Your task to perform on an android device: turn off priority inbox in the gmail app Image 0: 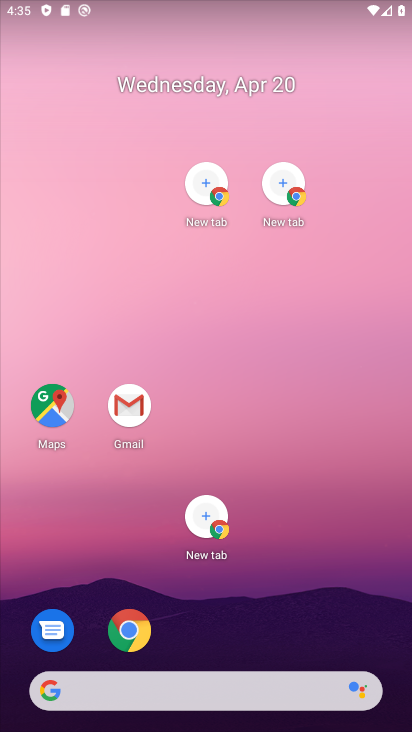
Step 0: drag from (299, 699) to (10, 80)
Your task to perform on an android device: turn off priority inbox in the gmail app Image 1: 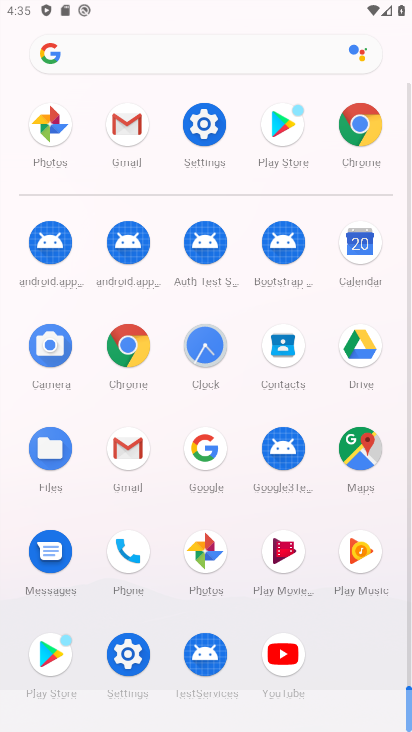
Step 1: click (121, 445)
Your task to perform on an android device: turn off priority inbox in the gmail app Image 2: 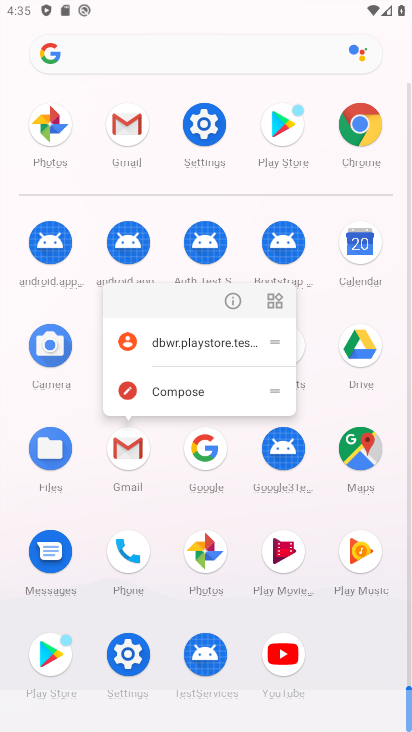
Step 2: click (121, 445)
Your task to perform on an android device: turn off priority inbox in the gmail app Image 3: 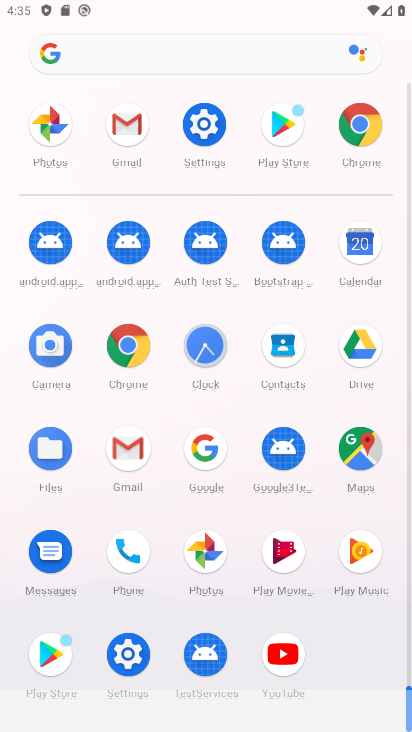
Step 3: click (123, 453)
Your task to perform on an android device: turn off priority inbox in the gmail app Image 4: 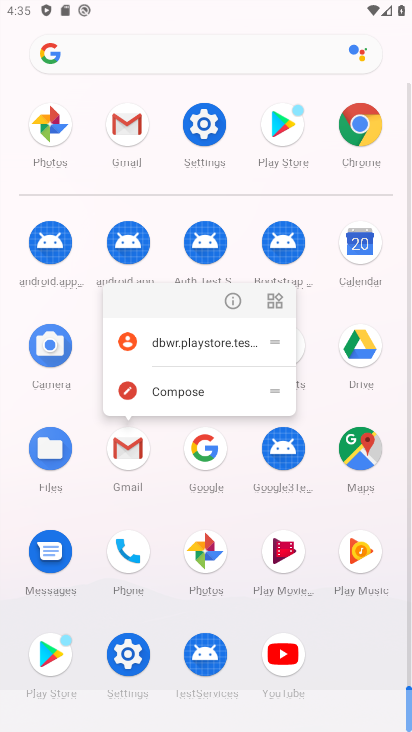
Step 4: click (124, 452)
Your task to perform on an android device: turn off priority inbox in the gmail app Image 5: 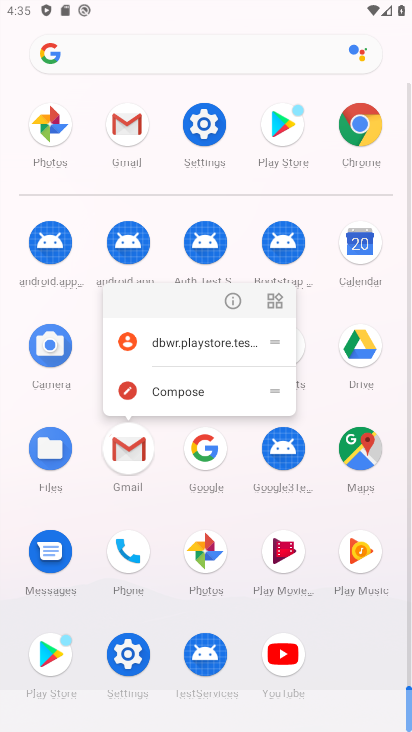
Step 5: click (127, 432)
Your task to perform on an android device: turn off priority inbox in the gmail app Image 6: 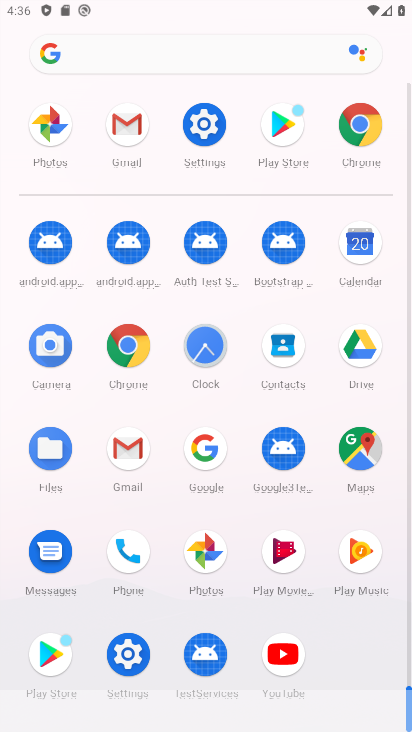
Step 6: drag from (128, 456) to (134, 527)
Your task to perform on an android device: turn off priority inbox in the gmail app Image 7: 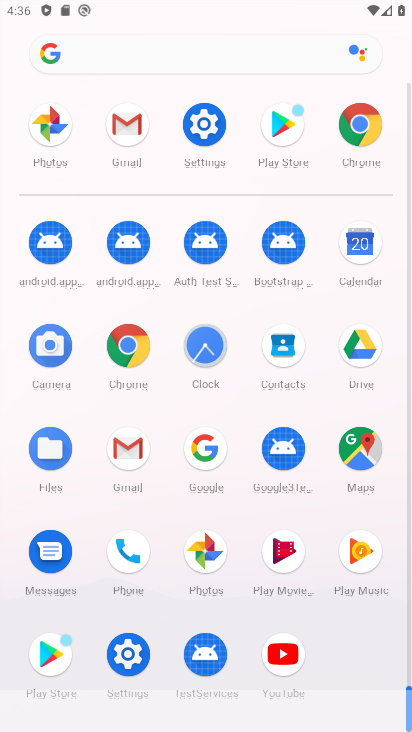
Step 7: click (116, 449)
Your task to perform on an android device: turn off priority inbox in the gmail app Image 8: 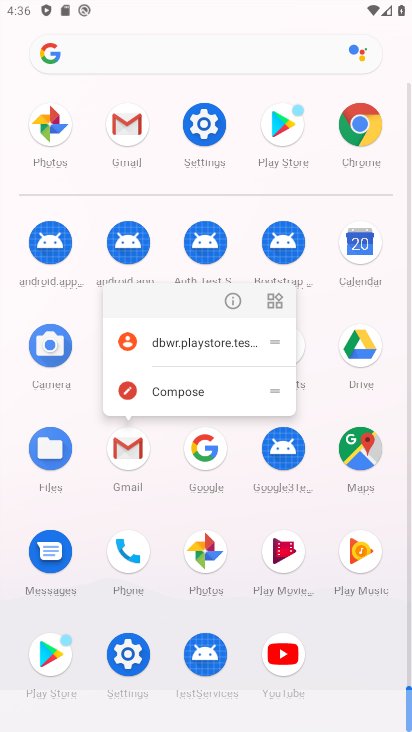
Step 8: click (124, 448)
Your task to perform on an android device: turn off priority inbox in the gmail app Image 9: 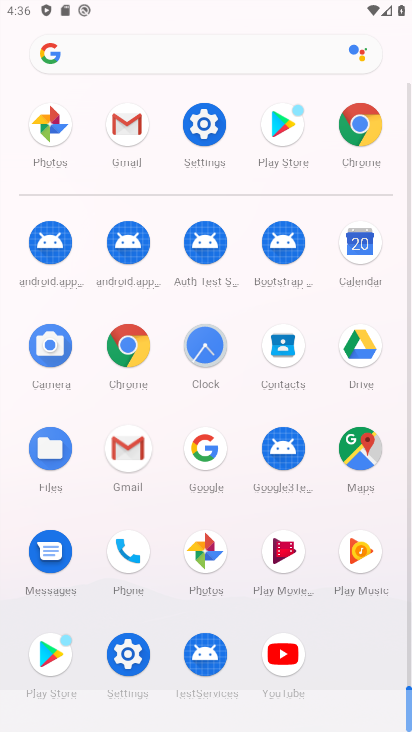
Step 9: drag from (124, 448) to (144, 579)
Your task to perform on an android device: turn off priority inbox in the gmail app Image 10: 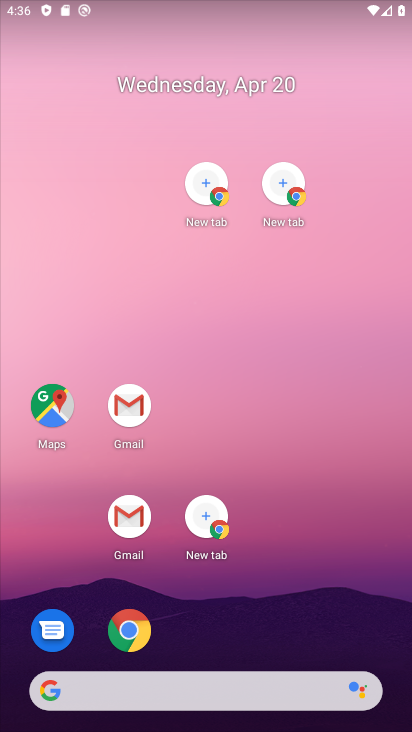
Step 10: click (72, 505)
Your task to perform on an android device: turn off priority inbox in the gmail app Image 11: 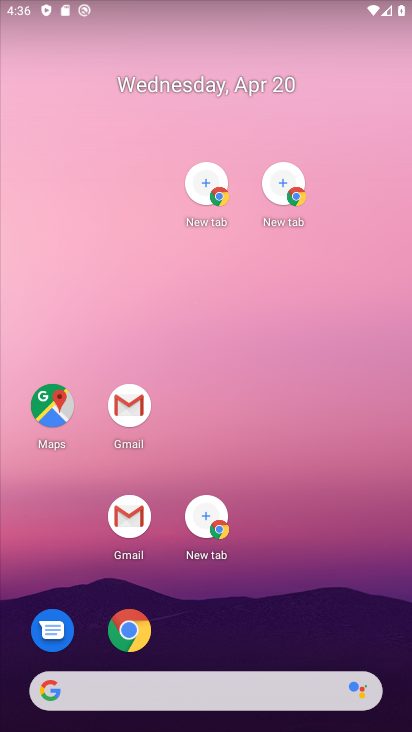
Step 11: click (108, 514)
Your task to perform on an android device: turn off priority inbox in the gmail app Image 12: 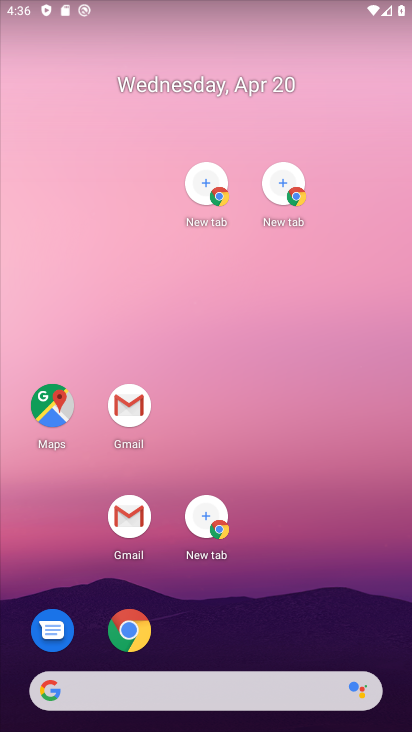
Step 12: click (122, 518)
Your task to perform on an android device: turn off priority inbox in the gmail app Image 13: 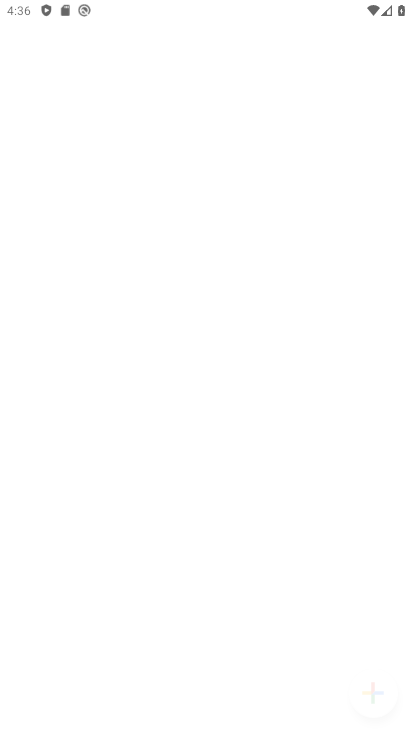
Step 13: click (123, 504)
Your task to perform on an android device: turn off priority inbox in the gmail app Image 14: 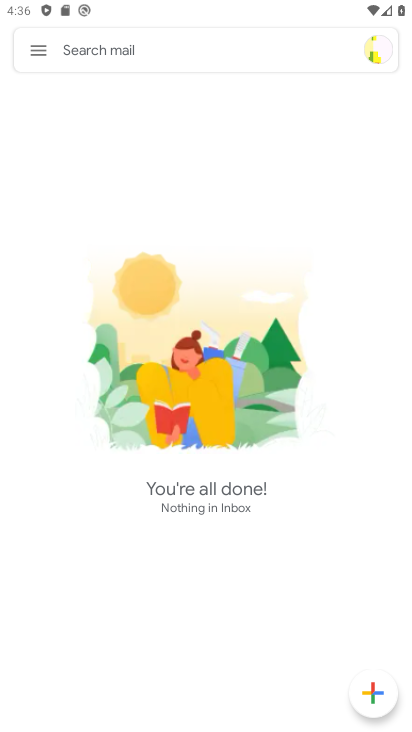
Step 14: click (38, 53)
Your task to perform on an android device: turn off priority inbox in the gmail app Image 15: 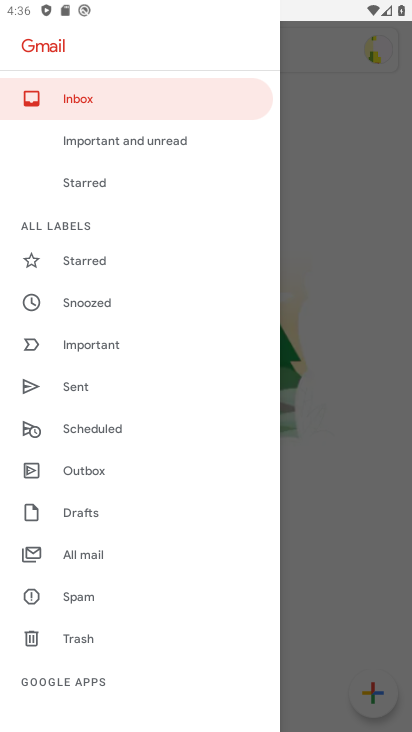
Step 15: drag from (137, 624) to (43, 204)
Your task to perform on an android device: turn off priority inbox in the gmail app Image 16: 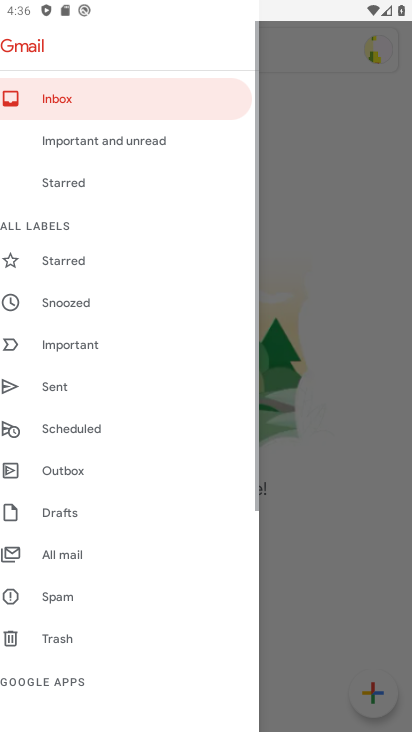
Step 16: drag from (110, 477) to (45, 97)
Your task to perform on an android device: turn off priority inbox in the gmail app Image 17: 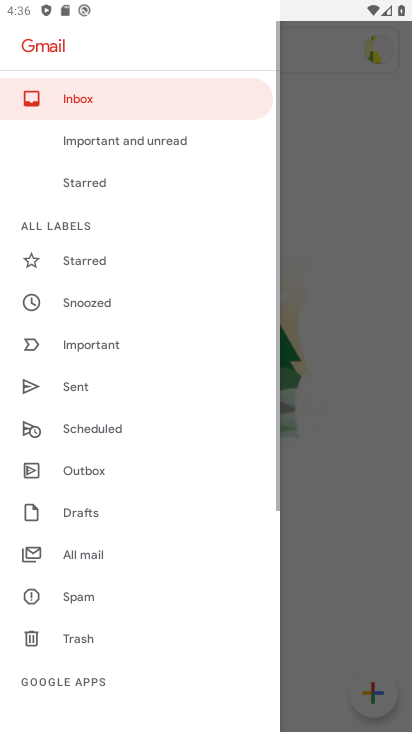
Step 17: drag from (102, 494) to (113, 224)
Your task to perform on an android device: turn off priority inbox in the gmail app Image 18: 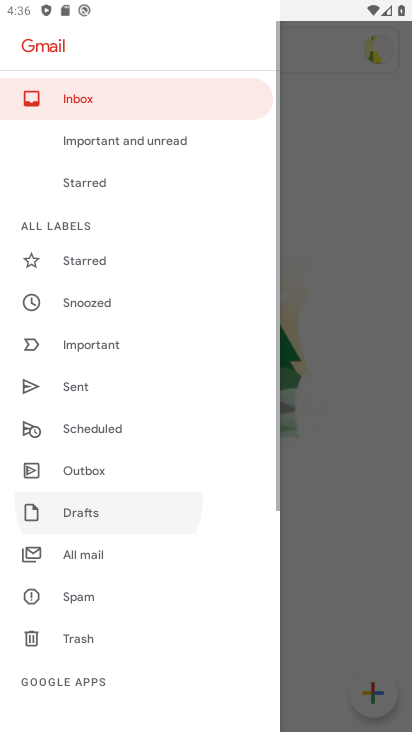
Step 18: drag from (107, 482) to (69, 171)
Your task to perform on an android device: turn off priority inbox in the gmail app Image 19: 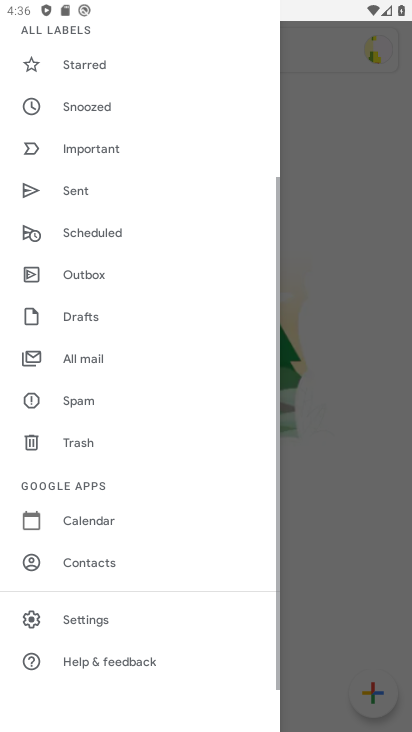
Step 19: click (81, 615)
Your task to perform on an android device: turn off priority inbox in the gmail app Image 20: 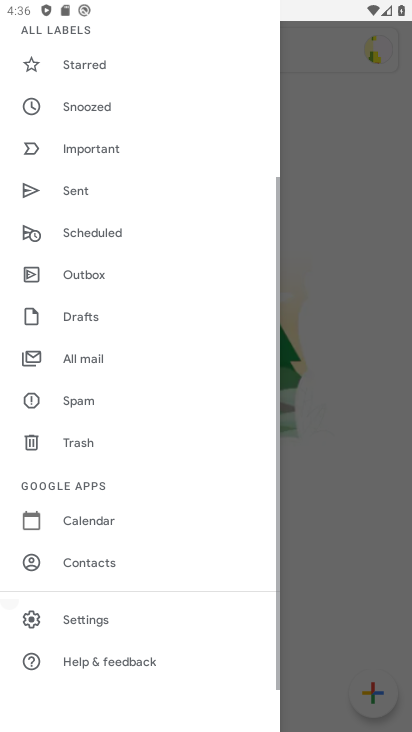
Step 20: click (81, 614)
Your task to perform on an android device: turn off priority inbox in the gmail app Image 21: 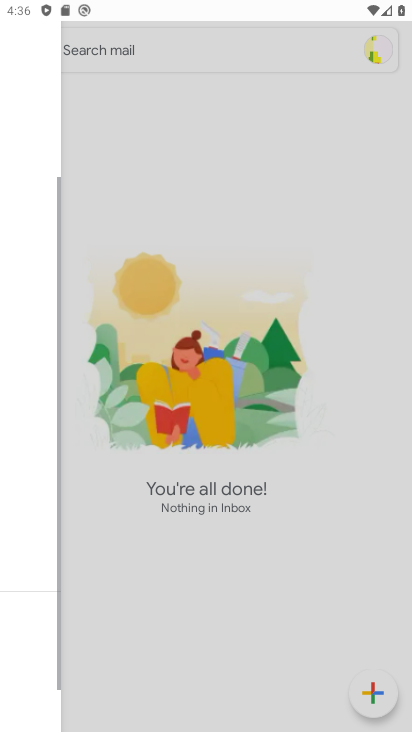
Step 21: click (79, 612)
Your task to perform on an android device: turn off priority inbox in the gmail app Image 22: 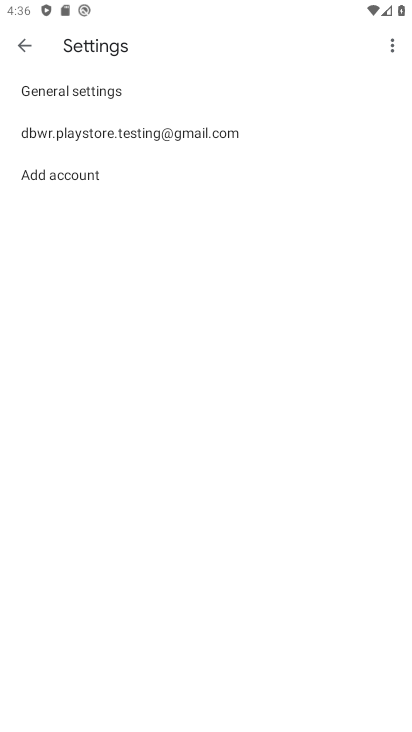
Step 22: click (79, 141)
Your task to perform on an android device: turn off priority inbox in the gmail app Image 23: 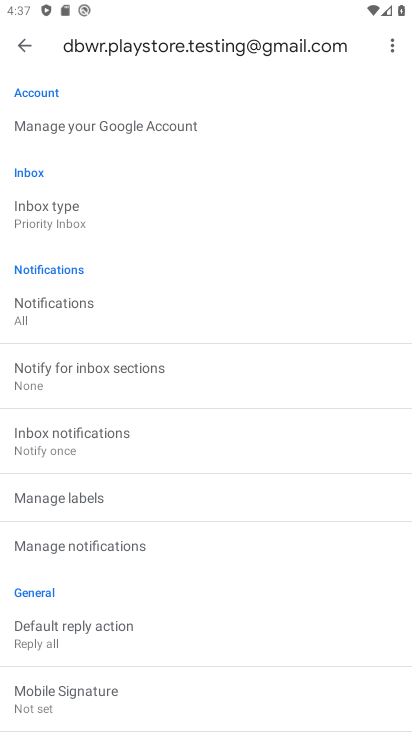
Step 23: click (38, 217)
Your task to perform on an android device: turn off priority inbox in the gmail app Image 24: 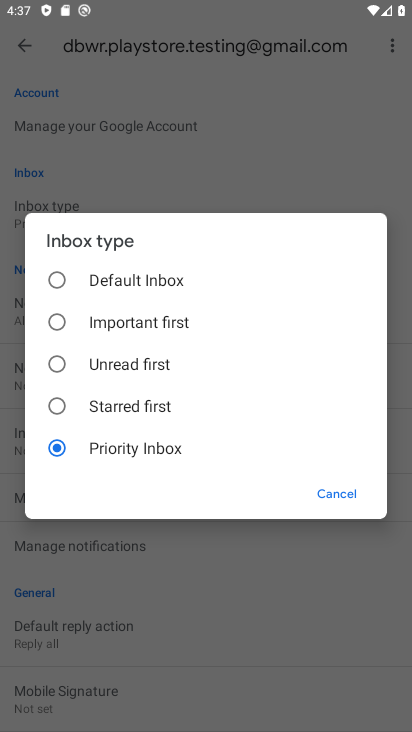
Step 24: click (51, 403)
Your task to perform on an android device: turn off priority inbox in the gmail app Image 25: 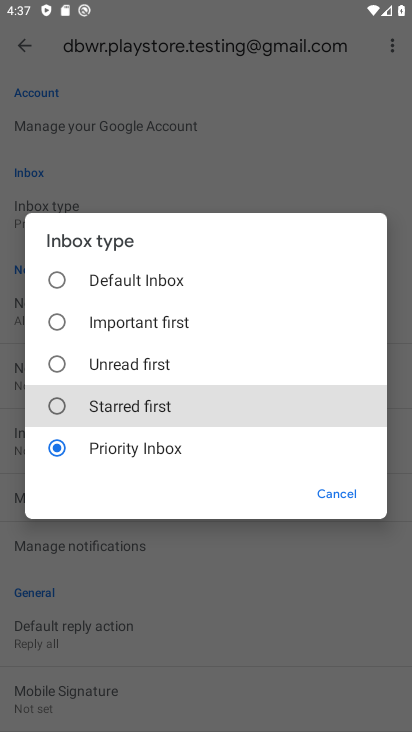
Step 25: click (51, 403)
Your task to perform on an android device: turn off priority inbox in the gmail app Image 26: 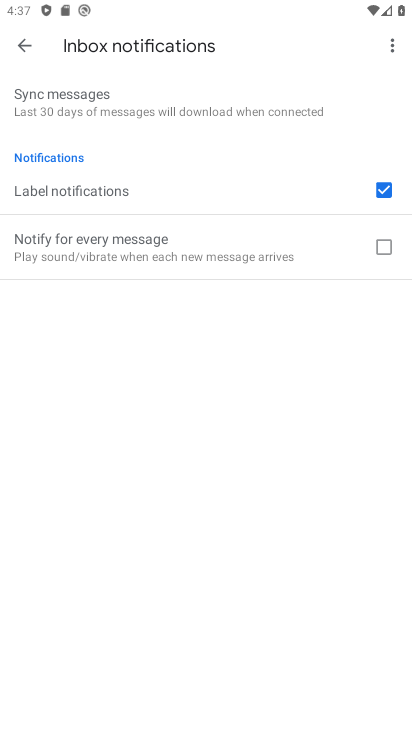
Step 26: task complete